Your task to perform on an android device: Check the weather Image 0: 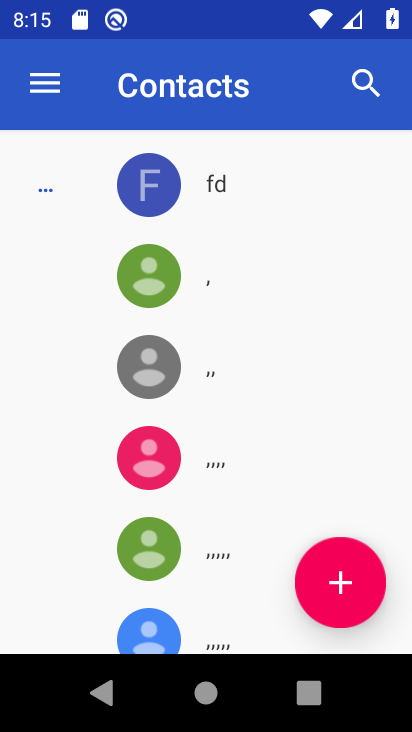
Step 0: press home button
Your task to perform on an android device: Check the weather Image 1: 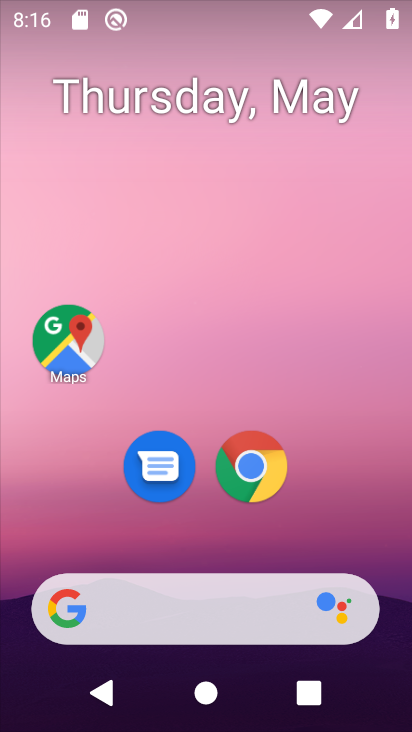
Step 1: click (196, 608)
Your task to perform on an android device: Check the weather Image 2: 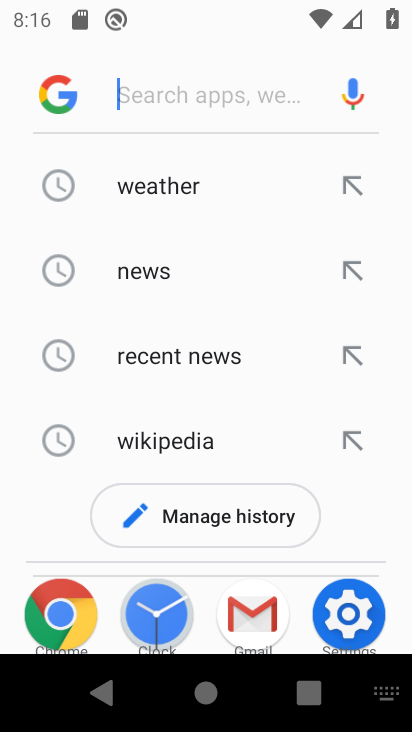
Step 2: click (193, 184)
Your task to perform on an android device: Check the weather Image 3: 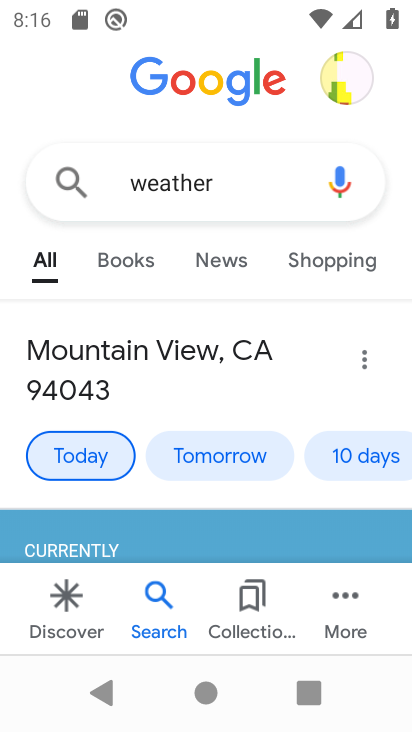
Step 3: task complete